Your task to perform on an android device: change the clock display to digital Image 0: 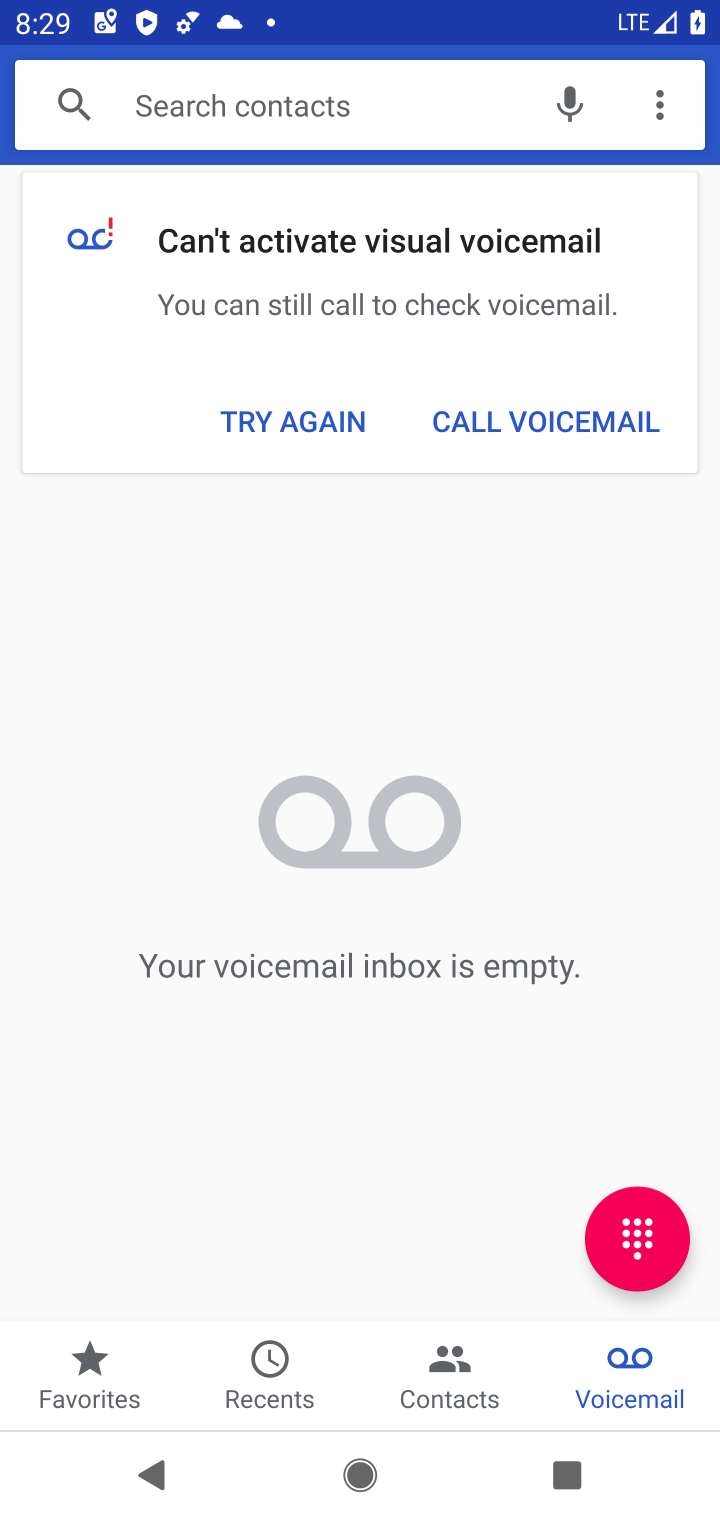
Step 0: press home button
Your task to perform on an android device: change the clock display to digital Image 1: 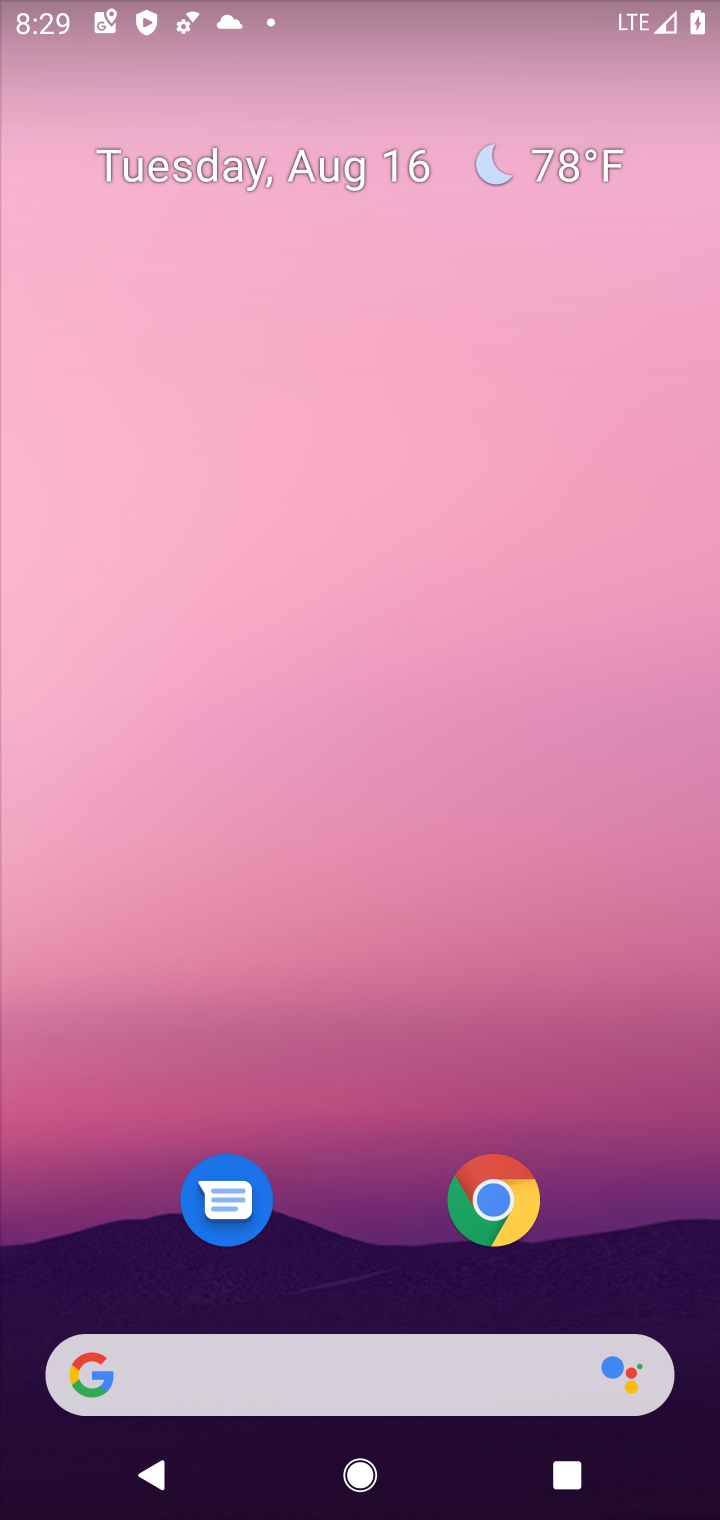
Step 1: drag from (639, 1279) to (594, 182)
Your task to perform on an android device: change the clock display to digital Image 2: 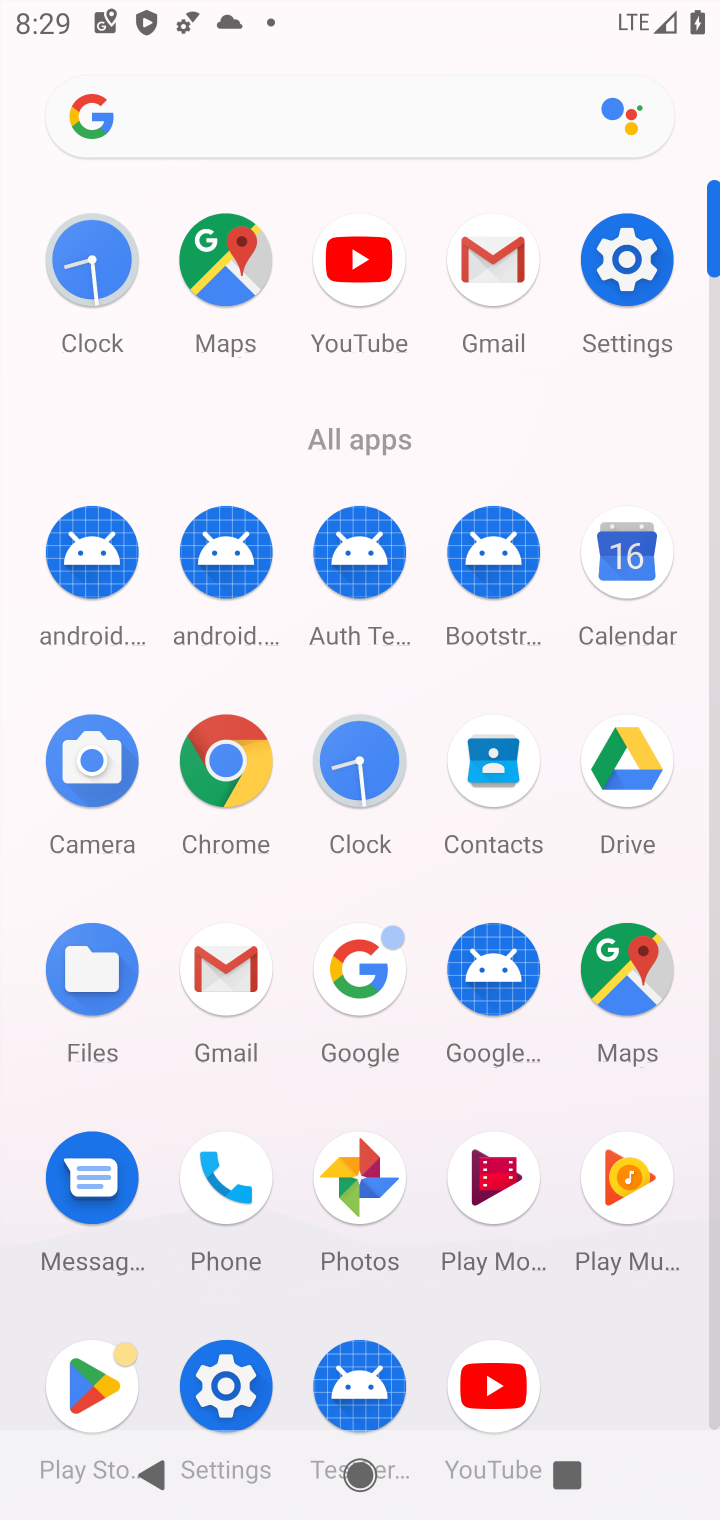
Step 2: click (364, 766)
Your task to perform on an android device: change the clock display to digital Image 3: 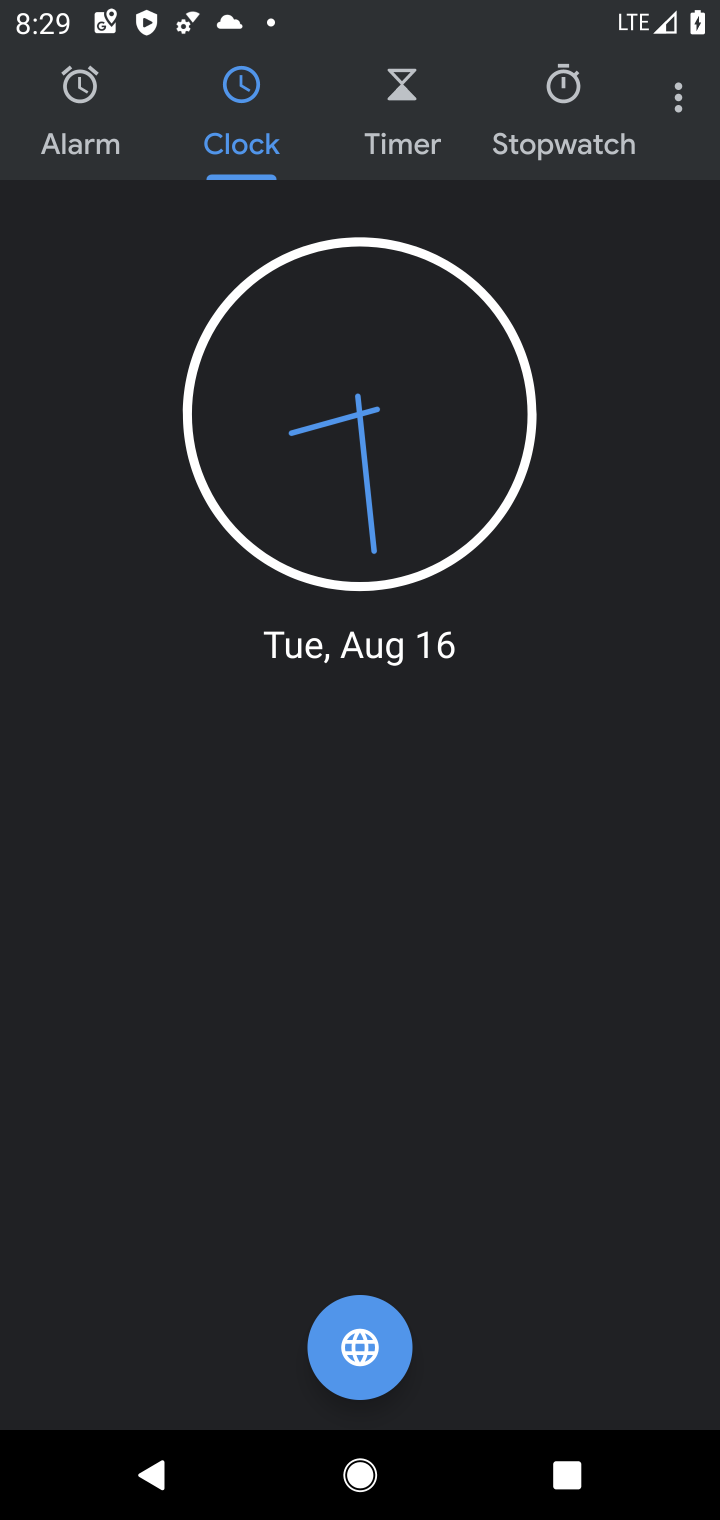
Step 3: click (667, 120)
Your task to perform on an android device: change the clock display to digital Image 4: 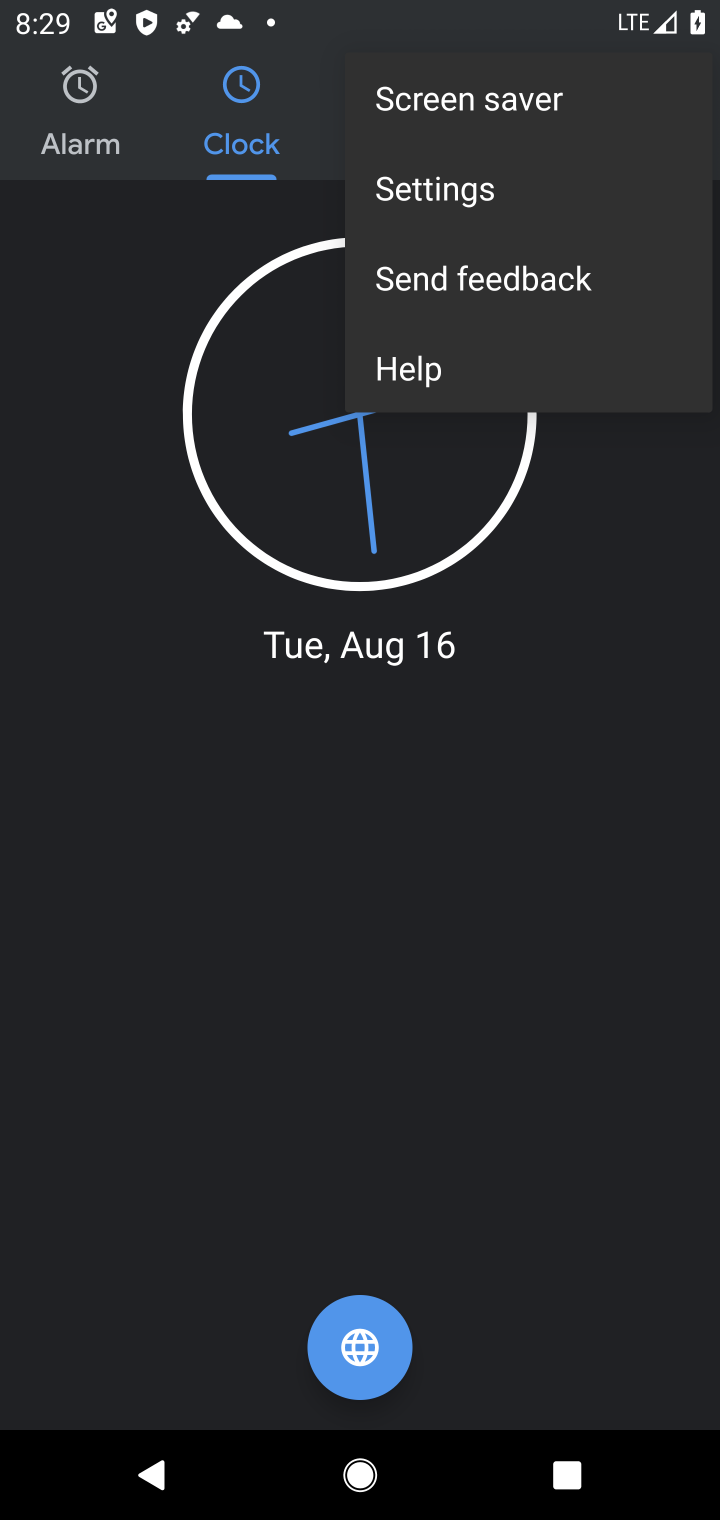
Step 4: click (431, 200)
Your task to perform on an android device: change the clock display to digital Image 5: 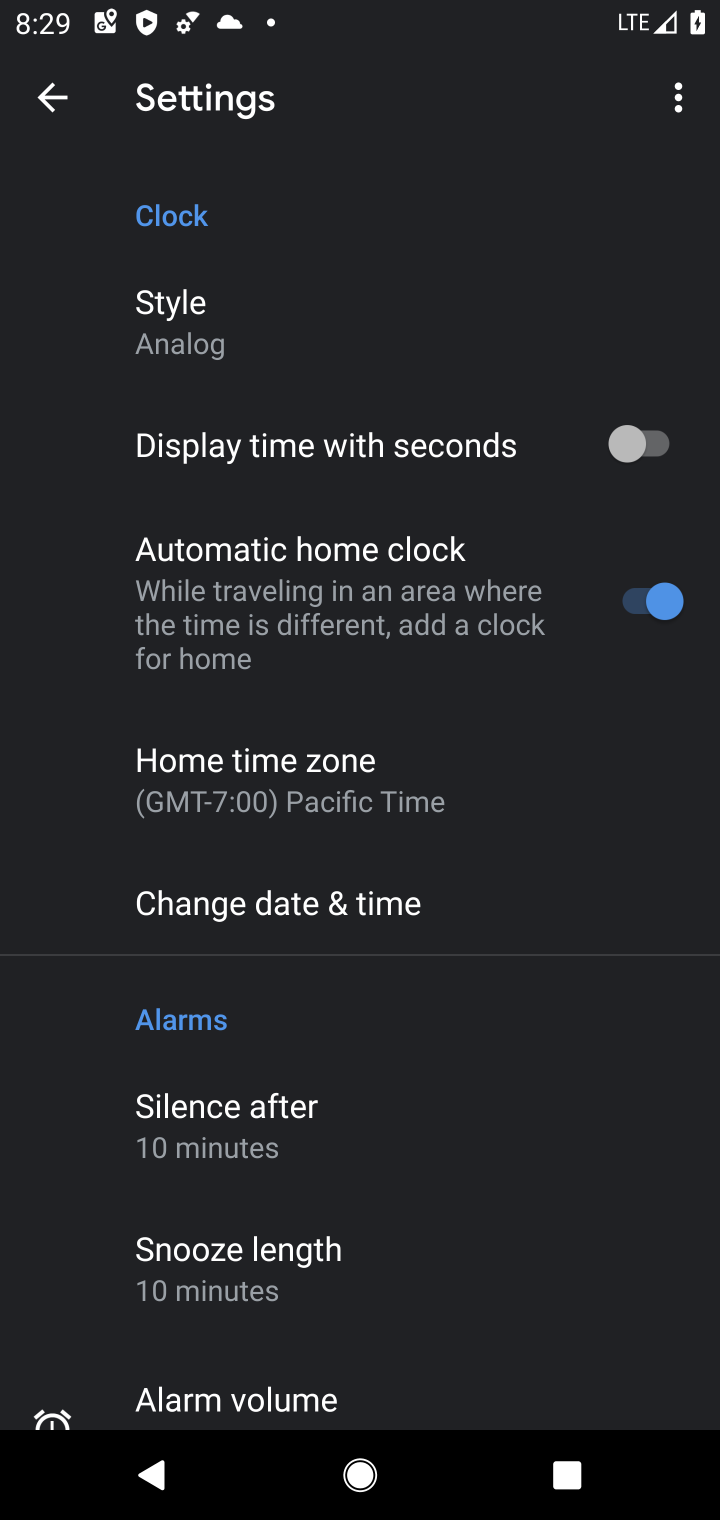
Step 5: click (202, 324)
Your task to perform on an android device: change the clock display to digital Image 6: 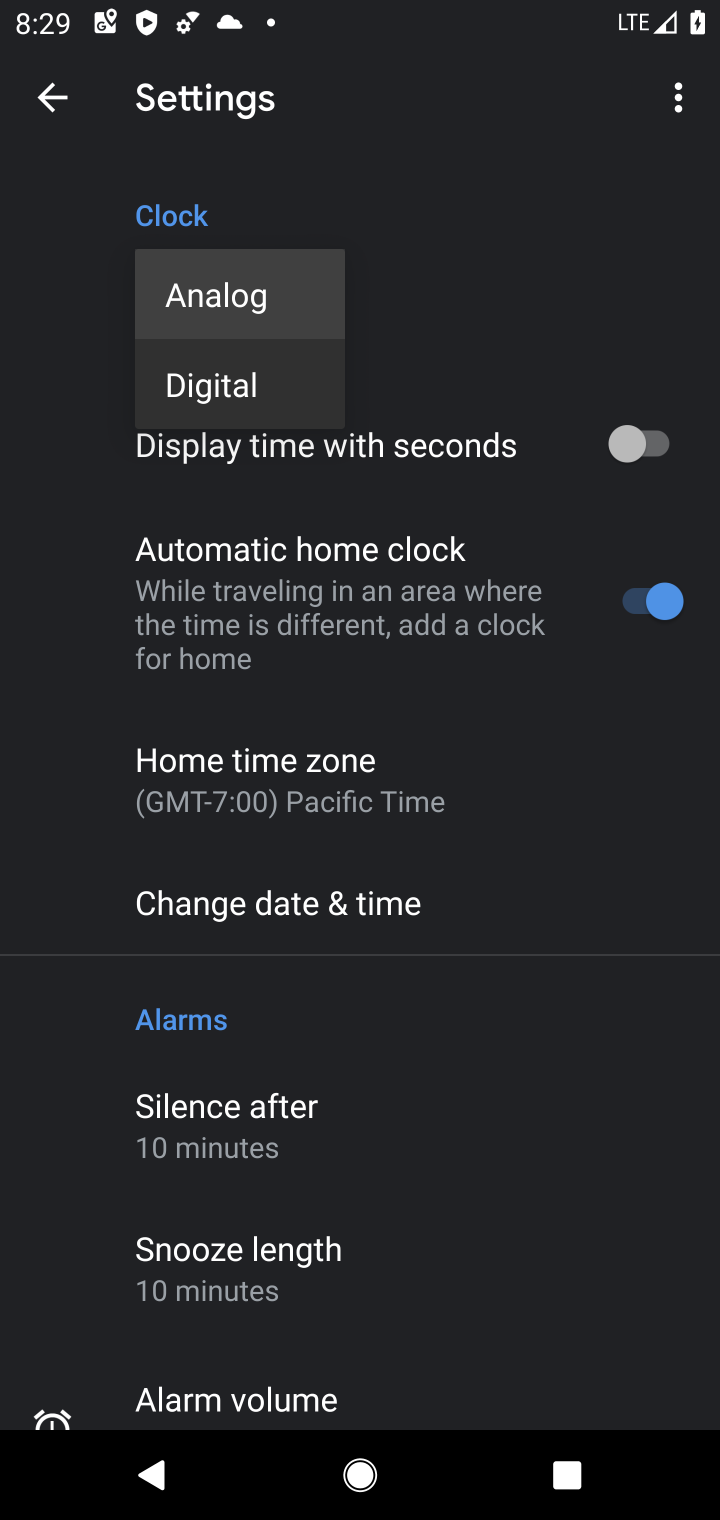
Step 6: click (224, 402)
Your task to perform on an android device: change the clock display to digital Image 7: 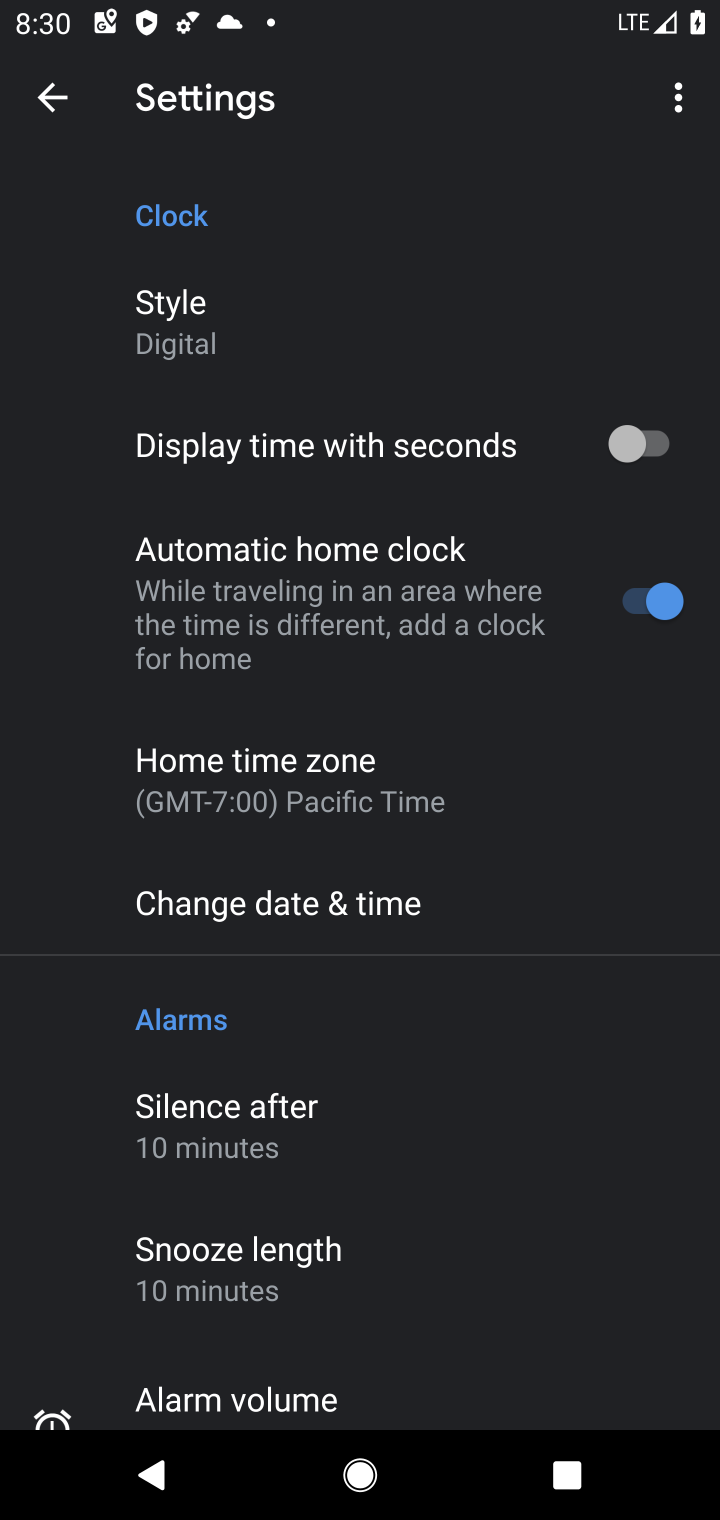
Step 7: task complete